Your task to perform on an android device: Open display settings Image 0: 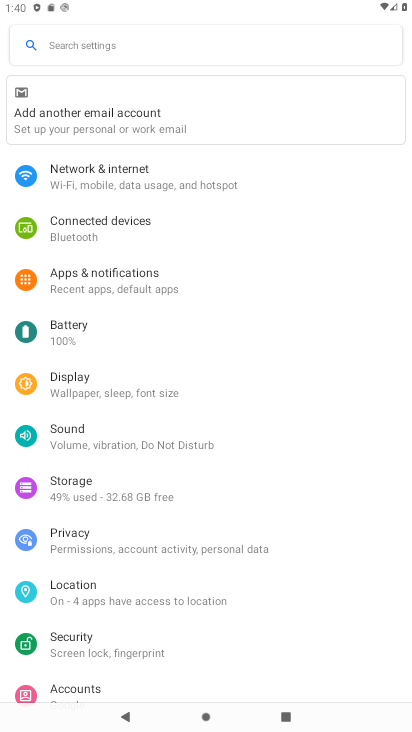
Step 0: click (179, 391)
Your task to perform on an android device: Open display settings Image 1: 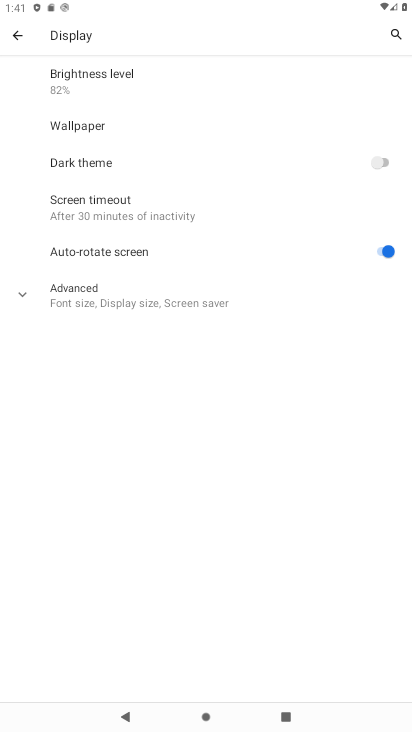
Step 1: task complete